Your task to perform on an android device: turn pop-ups off in chrome Image 0: 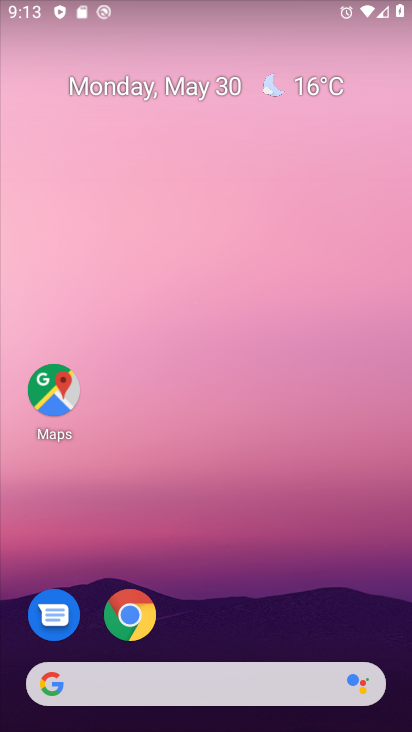
Step 0: click (132, 605)
Your task to perform on an android device: turn pop-ups off in chrome Image 1: 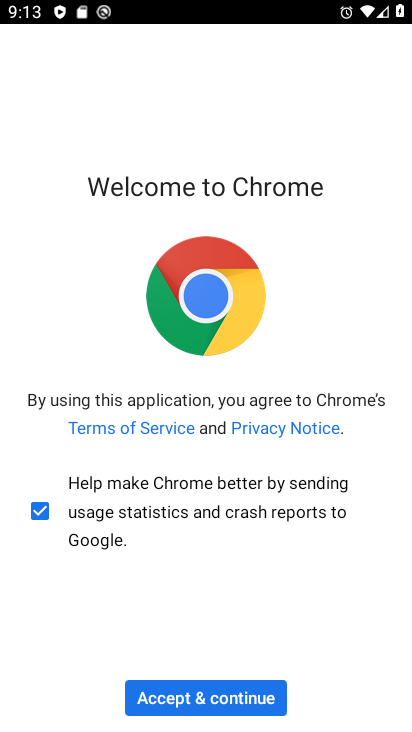
Step 1: click (172, 700)
Your task to perform on an android device: turn pop-ups off in chrome Image 2: 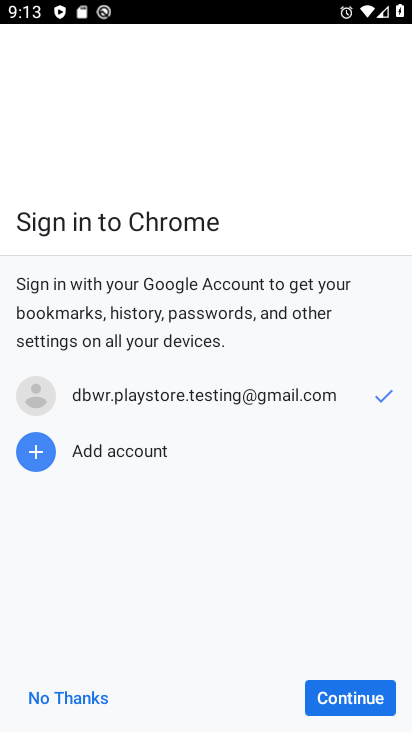
Step 2: click (344, 689)
Your task to perform on an android device: turn pop-ups off in chrome Image 3: 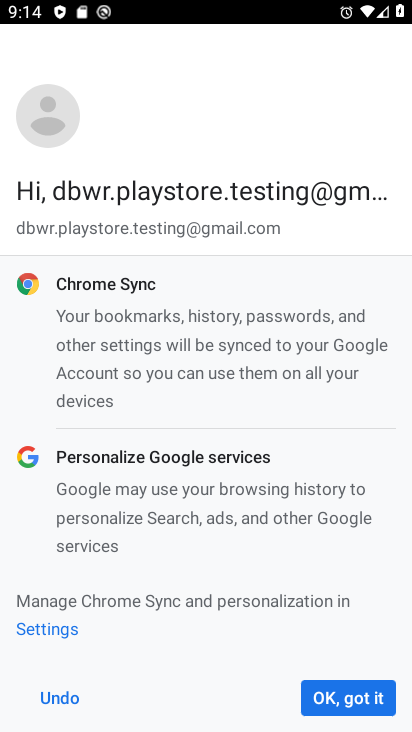
Step 3: click (354, 703)
Your task to perform on an android device: turn pop-ups off in chrome Image 4: 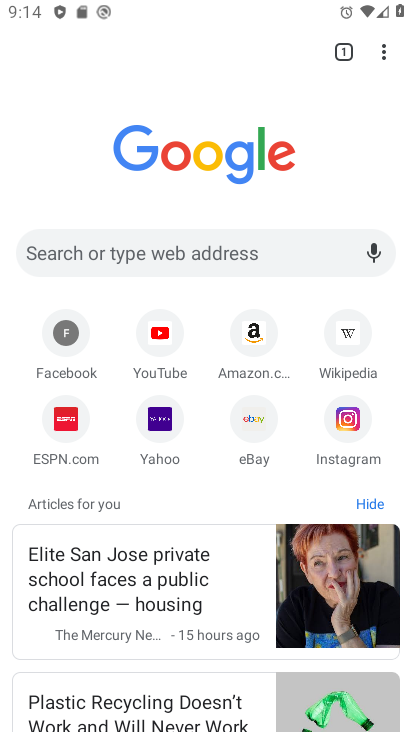
Step 4: drag from (379, 52) to (209, 436)
Your task to perform on an android device: turn pop-ups off in chrome Image 5: 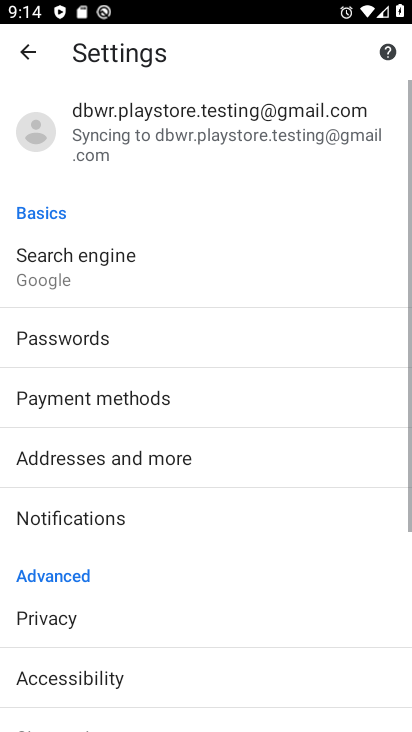
Step 5: drag from (157, 648) to (248, 158)
Your task to perform on an android device: turn pop-ups off in chrome Image 6: 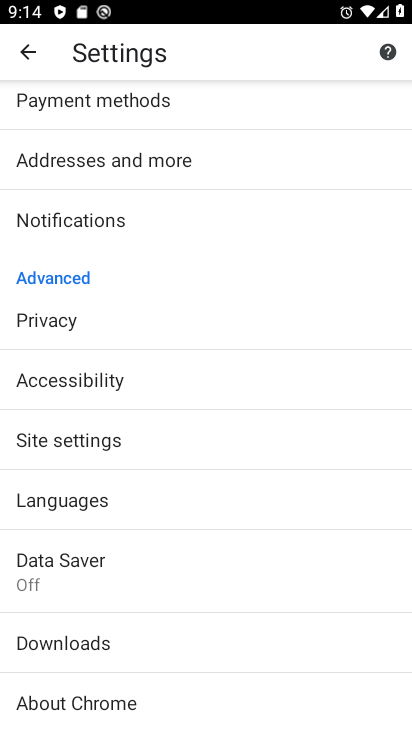
Step 6: click (115, 446)
Your task to perform on an android device: turn pop-ups off in chrome Image 7: 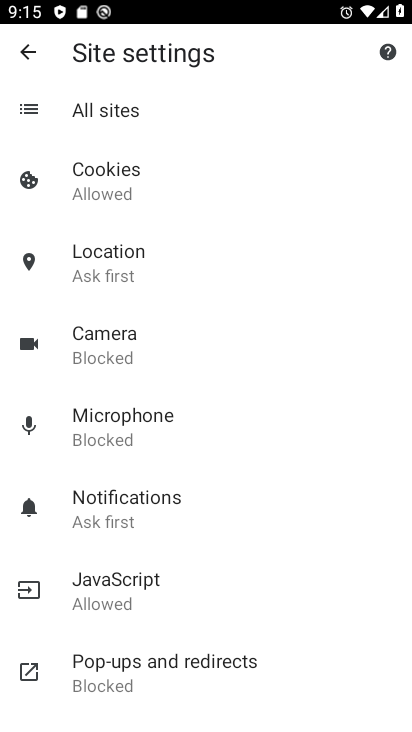
Step 7: click (136, 671)
Your task to perform on an android device: turn pop-ups off in chrome Image 8: 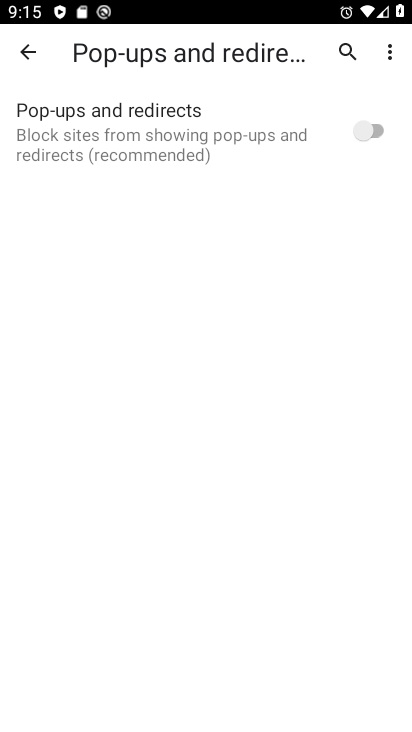
Step 8: task complete